Your task to perform on an android device: install app "NewsBreak: Local News & Alerts" Image 0: 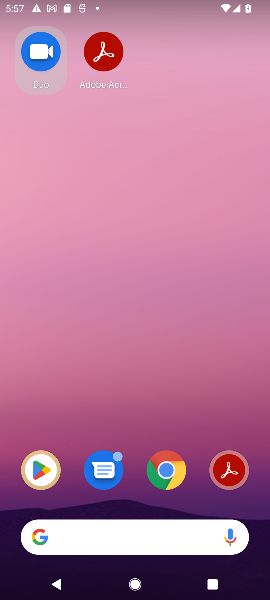
Step 0: drag from (212, 426) to (214, 30)
Your task to perform on an android device: install app "NewsBreak: Local News & Alerts" Image 1: 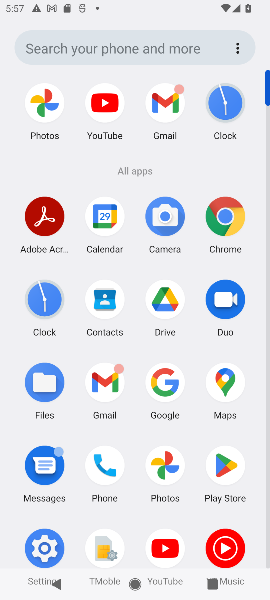
Step 1: click (232, 468)
Your task to perform on an android device: install app "NewsBreak: Local News & Alerts" Image 2: 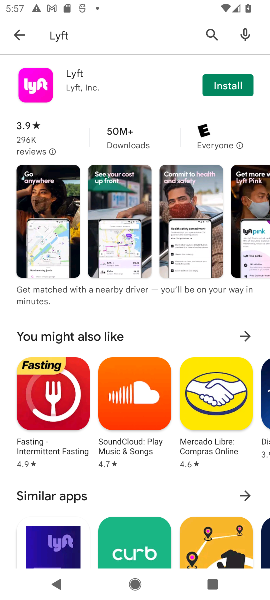
Step 2: click (168, 32)
Your task to perform on an android device: install app "NewsBreak: Local News & Alerts" Image 3: 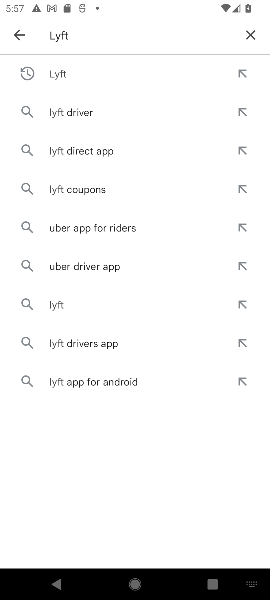
Step 3: click (255, 31)
Your task to perform on an android device: install app "NewsBreak: Local News & Alerts" Image 4: 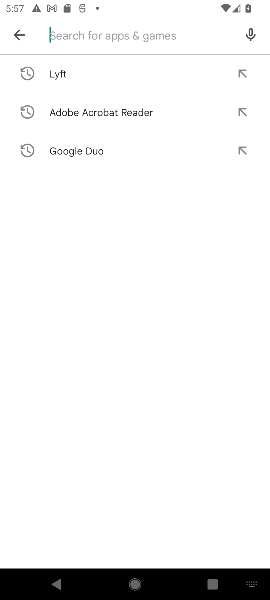
Step 4: type "NewsBreak: Local News & Alerts"
Your task to perform on an android device: install app "NewsBreak: Local News & Alerts" Image 5: 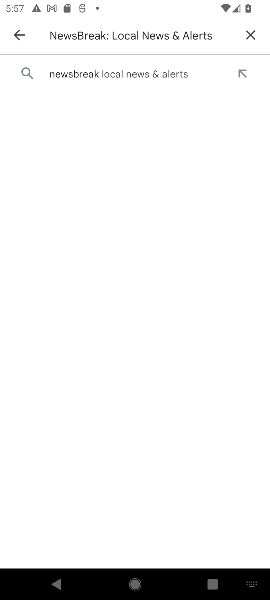
Step 5: press enter
Your task to perform on an android device: install app "NewsBreak: Local News & Alerts" Image 6: 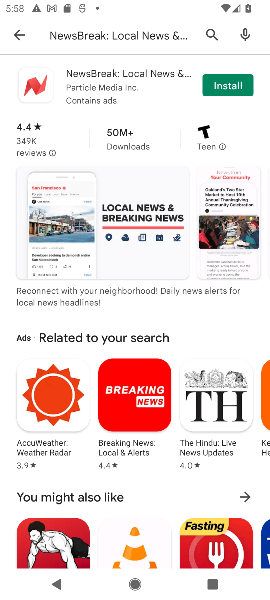
Step 6: click (233, 86)
Your task to perform on an android device: install app "NewsBreak: Local News & Alerts" Image 7: 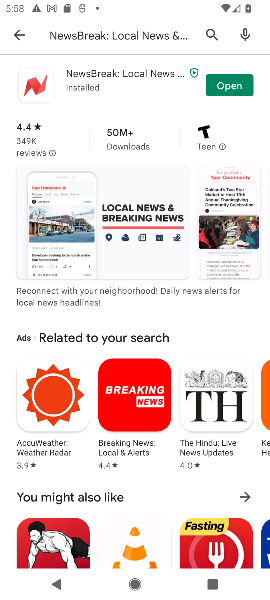
Step 7: task complete